Your task to perform on an android device: Do I have any events this weekend? Image 0: 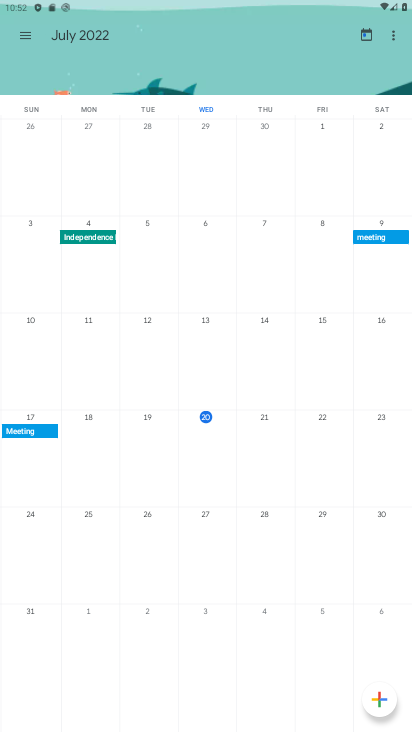
Step 0: click (23, 42)
Your task to perform on an android device: Do I have any events this weekend? Image 1: 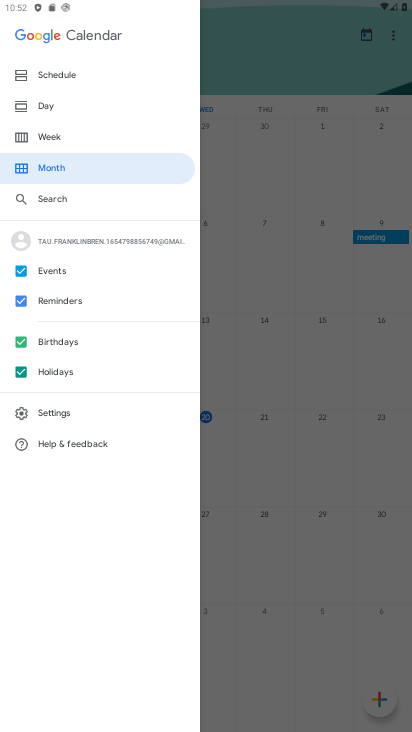
Step 1: click (52, 294)
Your task to perform on an android device: Do I have any events this weekend? Image 2: 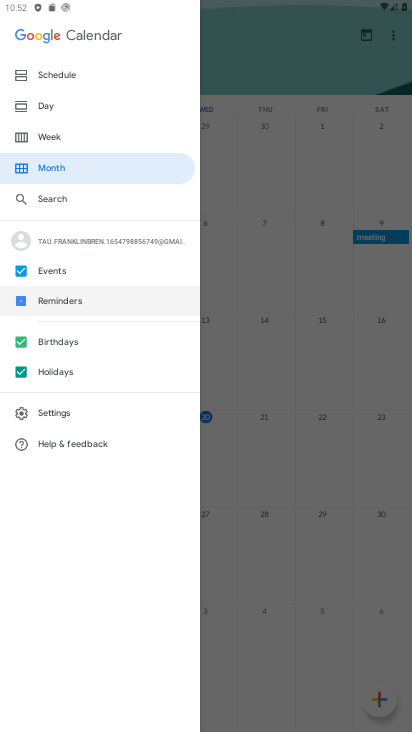
Step 2: click (49, 341)
Your task to perform on an android device: Do I have any events this weekend? Image 3: 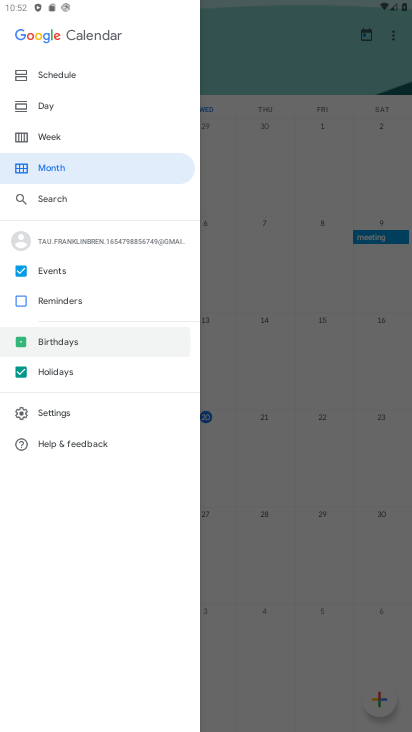
Step 3: click (44, 372)
Your task to perform on an android device: Do I have any events this weekend? Image 4: 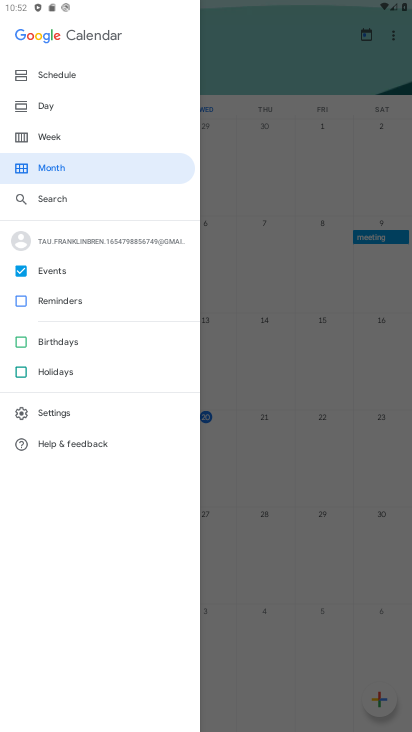
Step 4: click (53, 136)
Your task to perform on an android device: Do I have any events this weekend? Image 5: 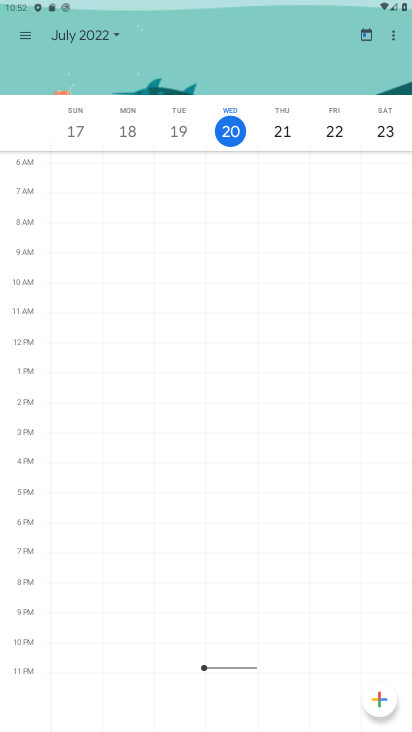
Step 5: task complete